Your task to perform on an android device: star an email in the gmail app Image 0: 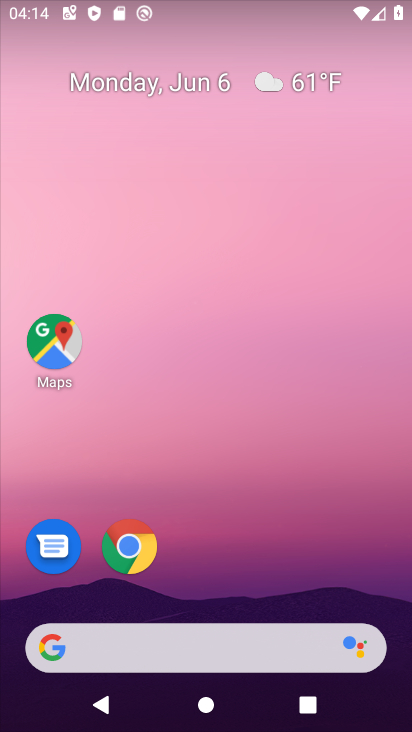
Step 0: press home button
Your task to perform on an android device: star an email in the gmail app Image 1: 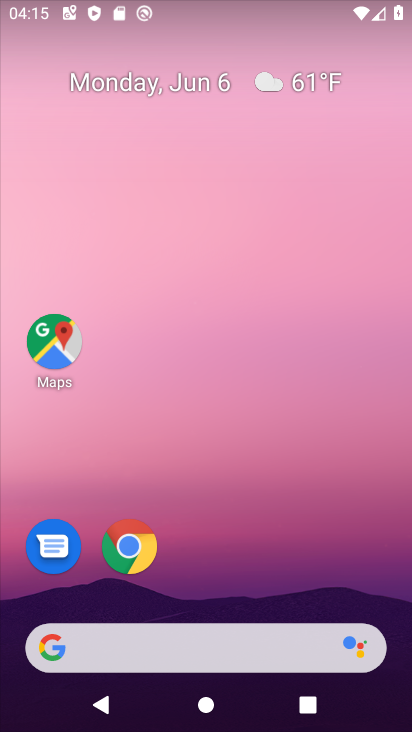
Step 1: drag from (216, 613) to (221, 246)
Your task to perform on an android device: star an email in the gmail app Image 2: 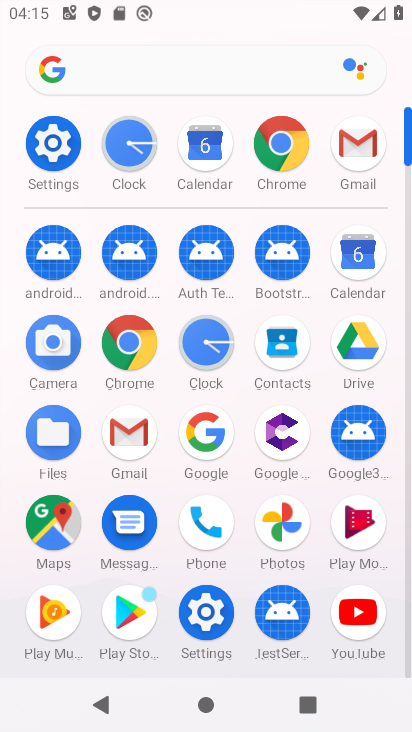
Step 2: click (368, 147)
Your task to perform on an android device: star an email in the gmail app Image 3: 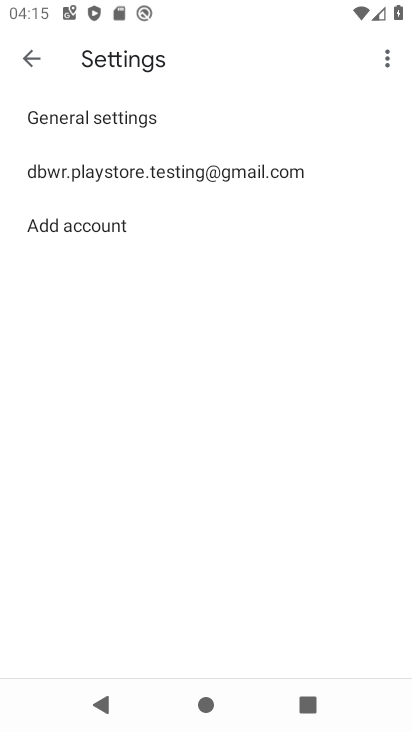
Step 3: click (37, 53)
Your task to perform on an android device: star an email in the gmail app Image 4: 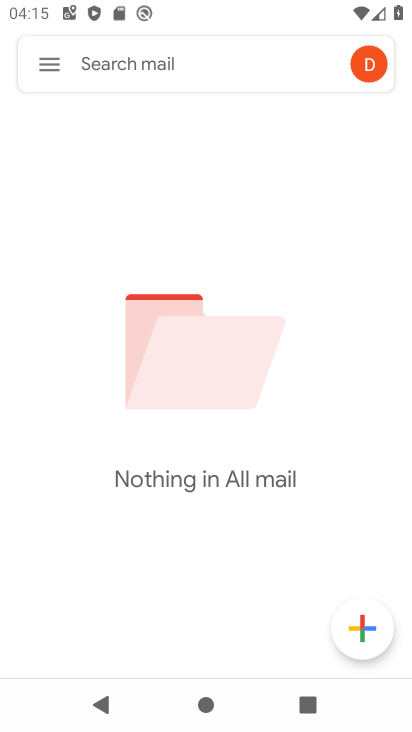
Step 4: click (52, 55)
Your task to perform on an android device: star an email in the gmail app Image 5: 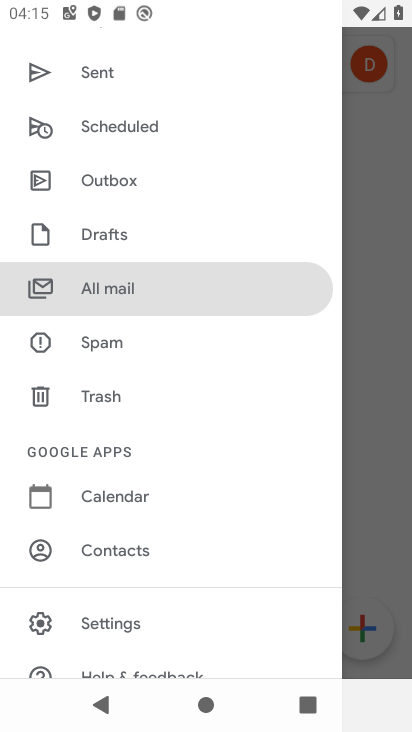
Step 5: click (121, 303)
Your task to perform on an android device: star an email in the gmail app Image 6: 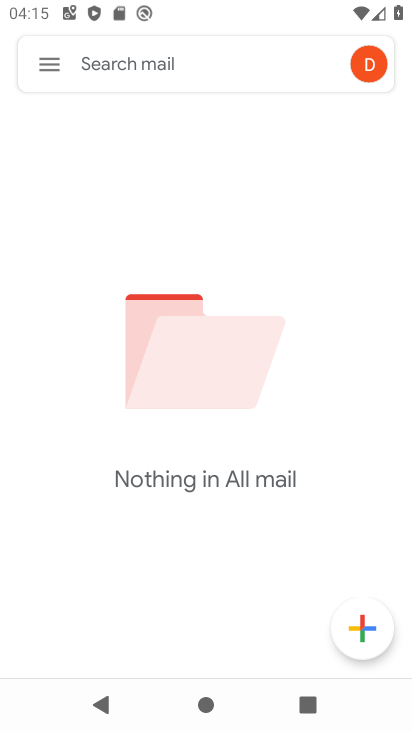
Step 6: task complete